Your task to perform on an android device: Do I have any events tomorrow? Image 0: 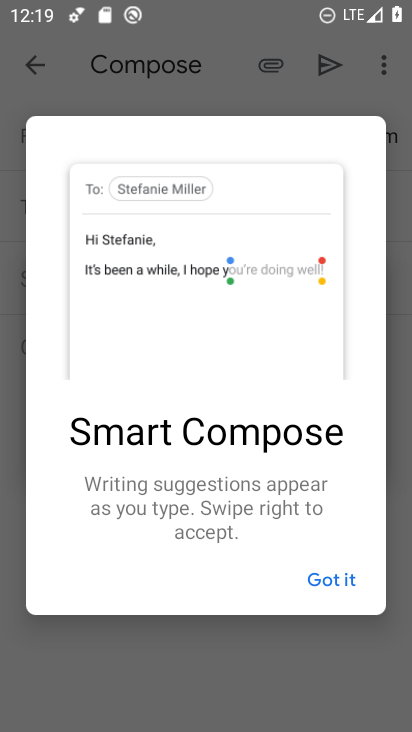
Step 0: press home button
Your task to perform on an android device: Do I have any events tomorrow? Image 1: 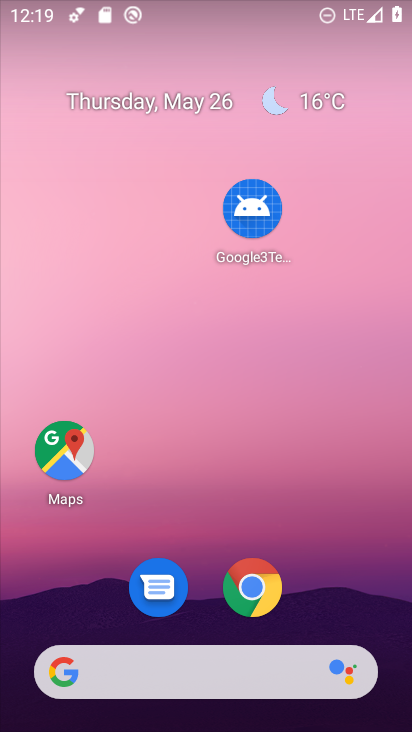
Step 1: drag from (214, 669) to (279, 148)
Your task to perform on an android device: Do I have any events tomorrow? Image 2: 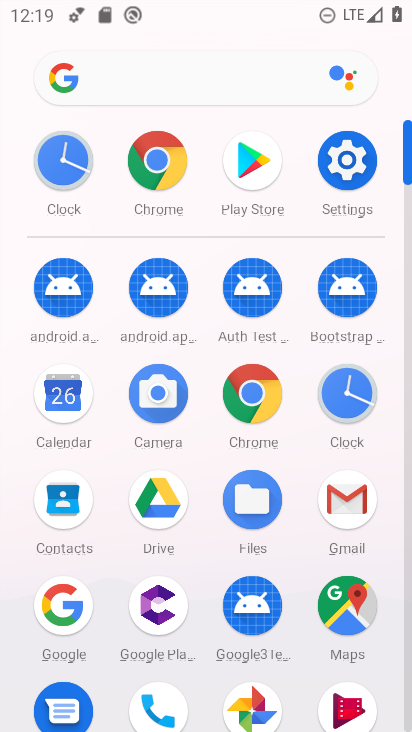
Step 2: click (71, 384)
Your task to perform on an android device: Do I have any events tomorrow? Image 3: 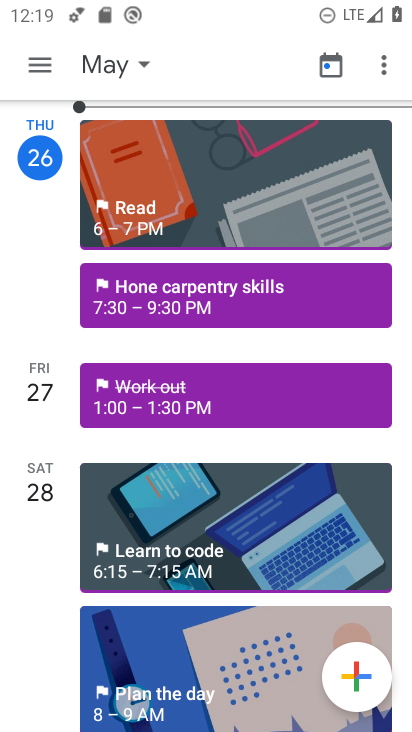
Step 3: task complete